Your task to perform on an android device: find snoozed emails in the gmail app Image 0: 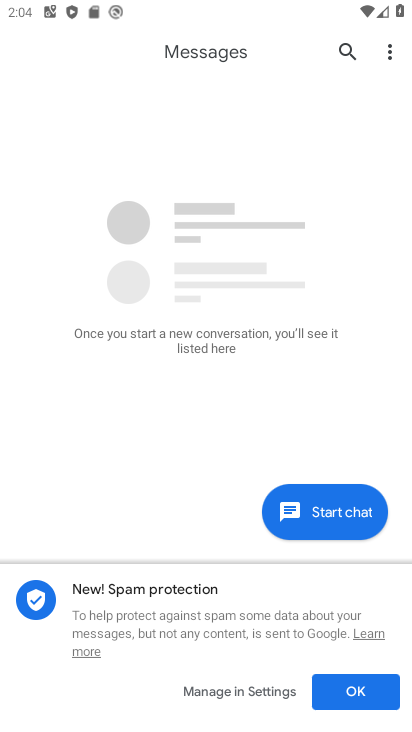
Step 0: press home button
Your task to perform on an android device: find snoozed emails in the gmail app Image 1: 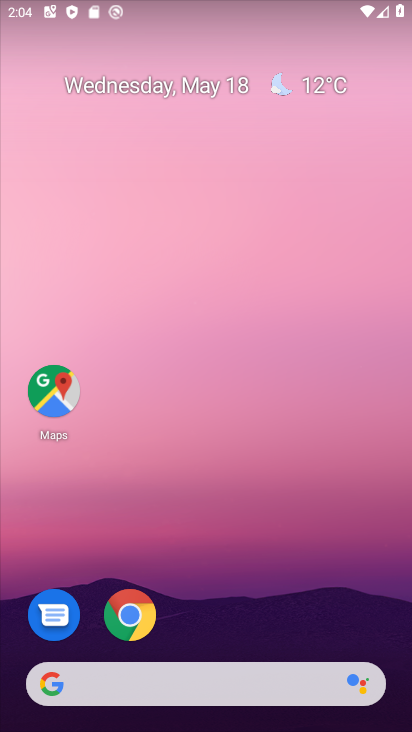
Step 1: drag from (310, 610) to (178, 4)
Your task to perform on an android device: find snoozed emails in the gmail app Image 2: 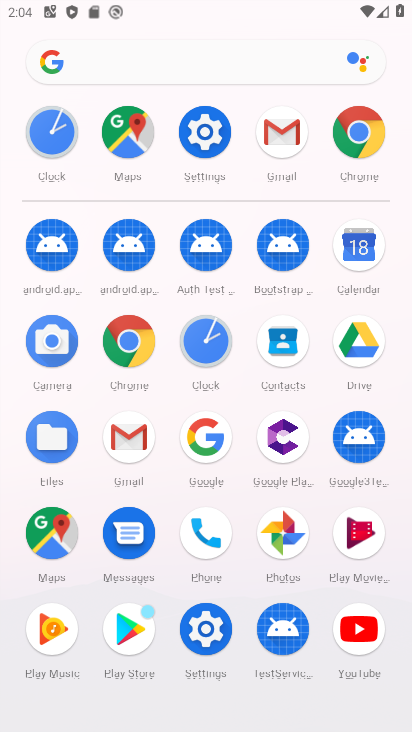
Step 2: click (119, 436)
Your task to perform on an android device: find snoozed emails in the gmail app Image 3: 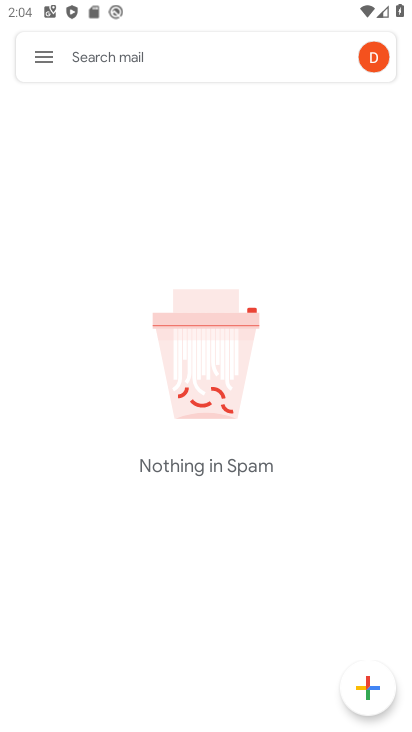
Step 3: click (44, 59)
Your task to perform on an android device: find snoozed emails in the gmail app Image 4: 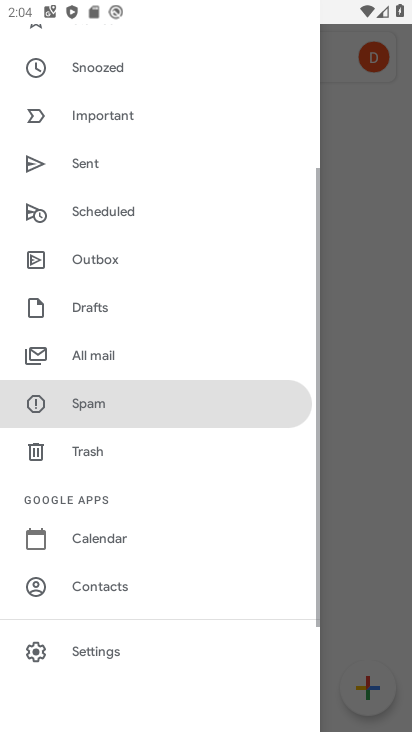
Step 4: click (155, 60)
Your task to perform on an android device: find snoozed emails in the gmail app Image 5: 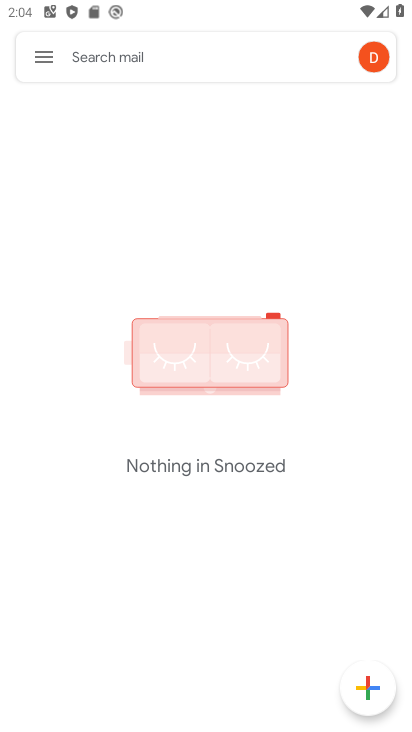
Step 5: task complete